Your task to perform on an android device: Go to Google Image 0: 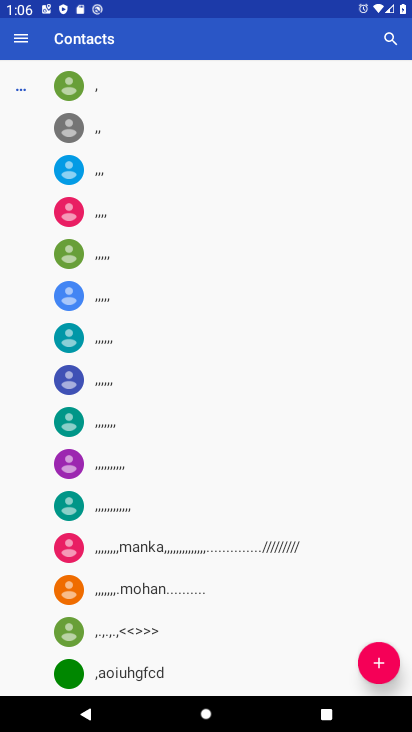
Step 0: press home button
Your task to perform on an android device: Go to Google Image 1: 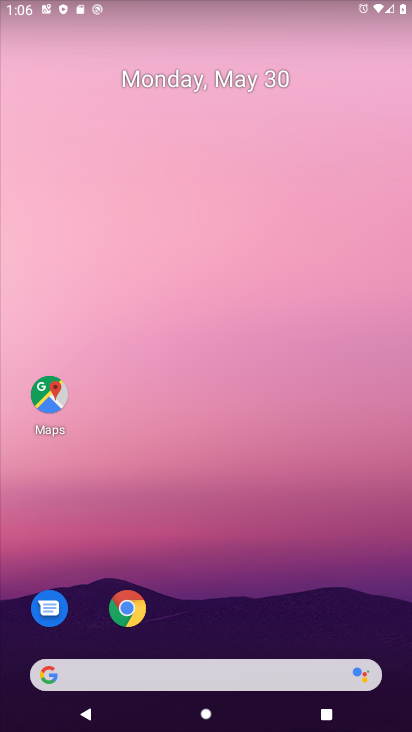
Step 1: click (175, 670)
Your task to perform on an android device: Go to Google Image 2: 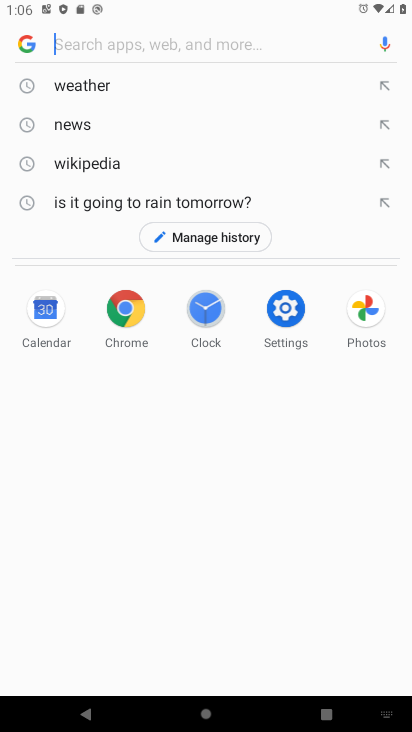
Step 2: task complete